Your task to perform on an android device: turn off sleep mode Image 0: 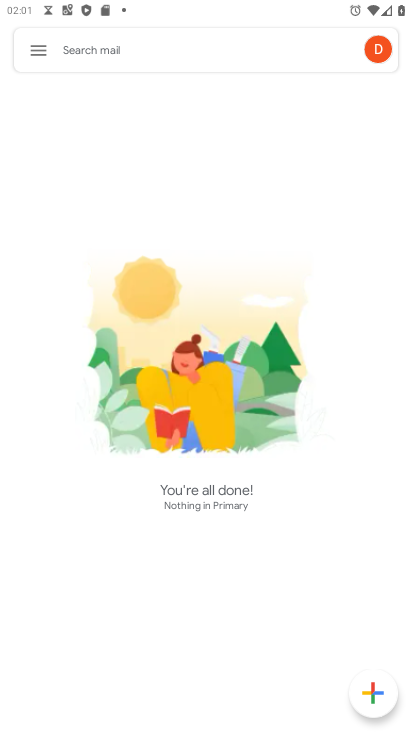
Step 0: press home button
Your task to perform on an android device: turn off sleep mode Image 1: 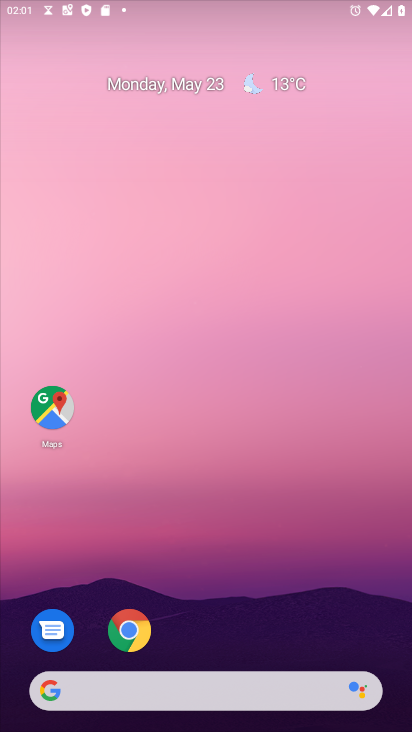
Step 1: drag from (279, 588) to (146, 1)
Your task to perform on an android device: turn off sleep mode Image 2: 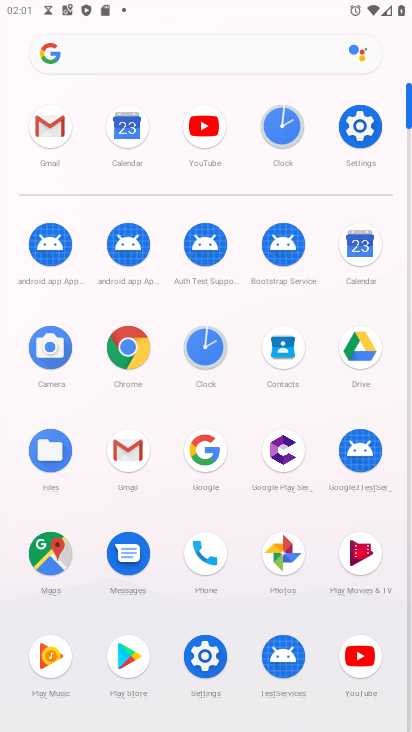
Step 2: click (353, 134)
Your task to perform on an android device: turn off sleep mode Image 3: 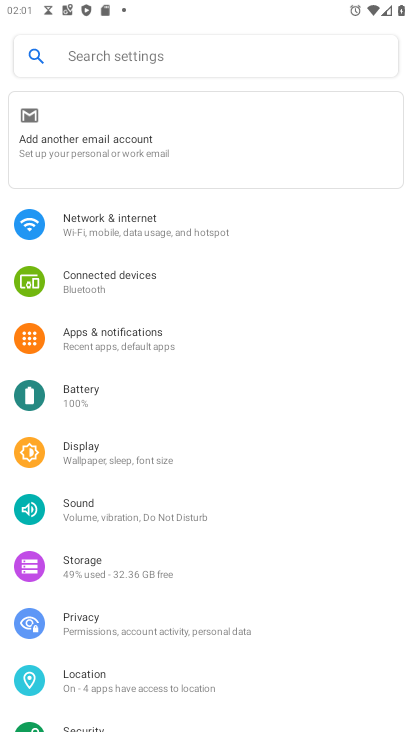
Step 3: click (178, 465)
Your task to perform on an android device: turn off sleep mode Image 4: 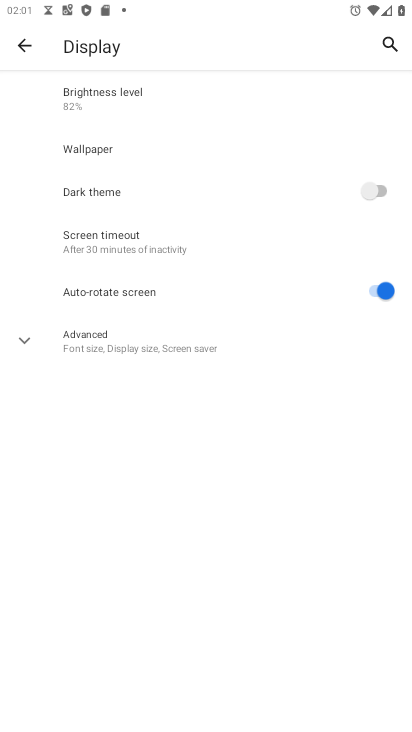
Step 4: task complete